Your task to perform on an android device: Go to sound settings Image 0: 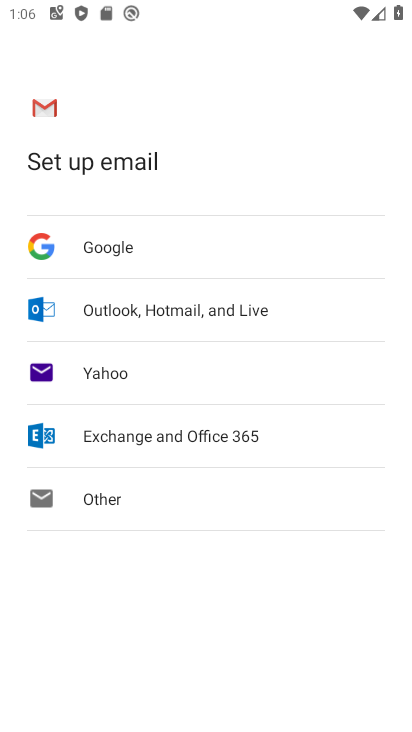
Step 0: press home button
Your task to perform on an android device: Go to sound settings Image 1: 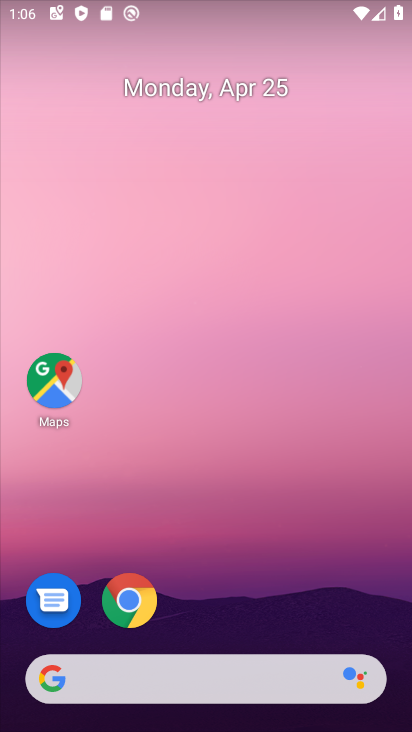
Step 1: drag from (166, 684) to (362, 83)
Your task to perform on an android device: Go to sound settings Image 2: 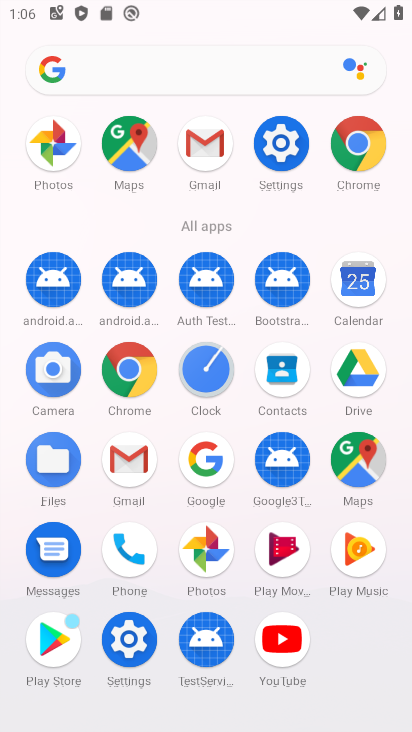
Step 2: click (284, 147)
Your task to perform on an android device: Go to sound settings Image 3: 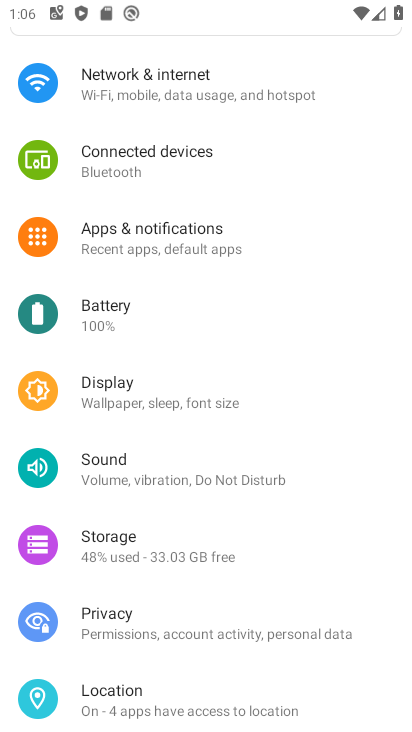
Step 3: click (117, 461)
Your task to perform on an android device: Go to sound settings Image 4: 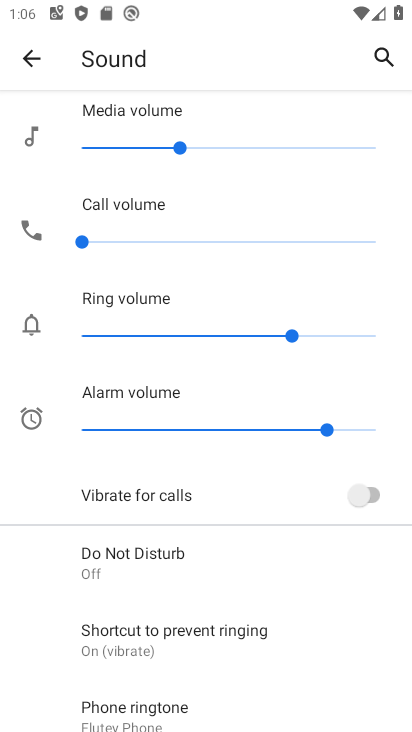
Step 4: task complete